Your task to perform on an android device: Open the phone app and click the voicemail tab. Image 0: 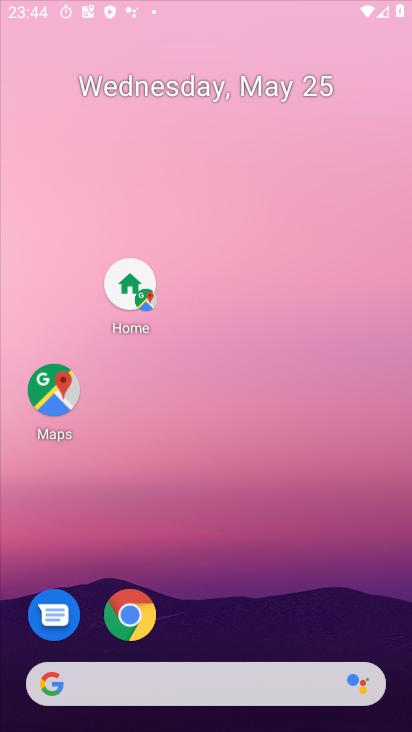
Step 0: press home button
Your task to perform on an android device: Open the phone app and click the voicemail tab. Image 1: 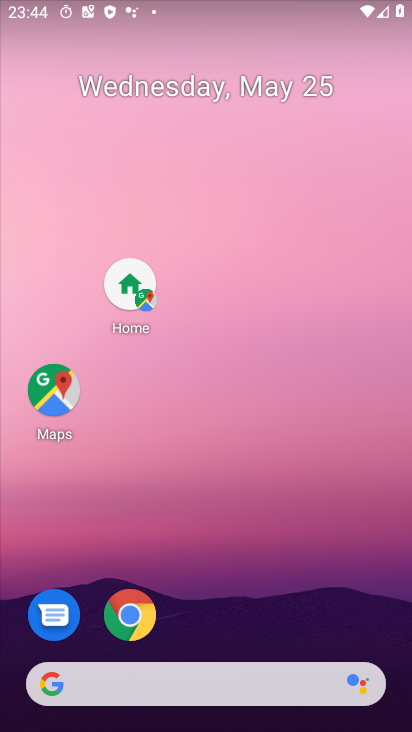
Step 1: click (52, 397)
Your task to perform on an android device: Open the phone app and click the voicemail tab. Image 2: 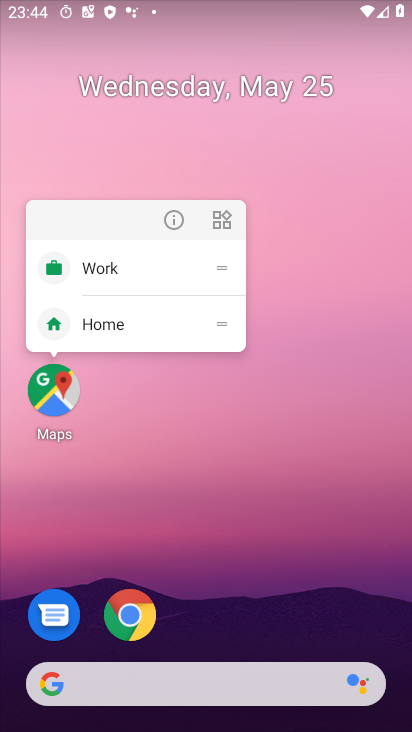
Step 2: click (52, 395)
Your task to perform on an android device: Open the phone app and click the voicemail tab. Image 3: 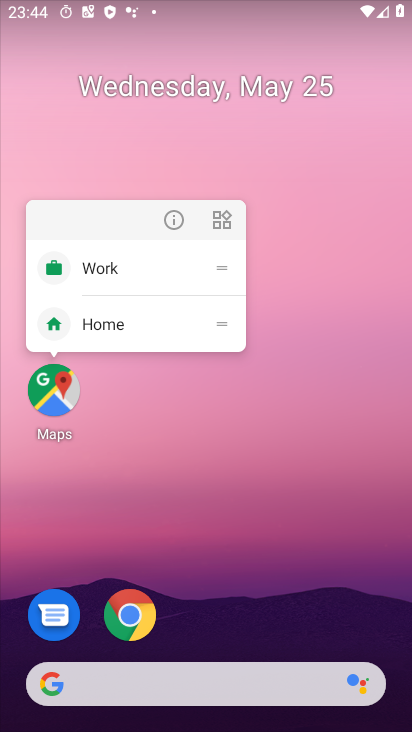
Step 3: click (53, 395)
Your task to perform on an android device: Open the phone app and click the voicemail tab. Image 4: 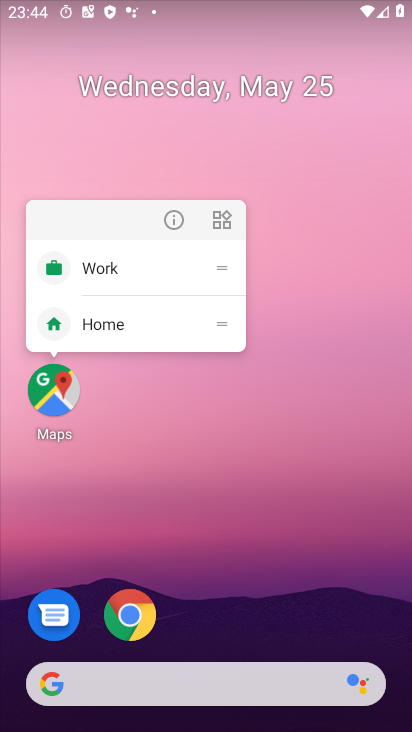
Step 4: click (47, 396)
Your task to perform on an android device: Open the phone app and click the voicemail tab. Image 5: 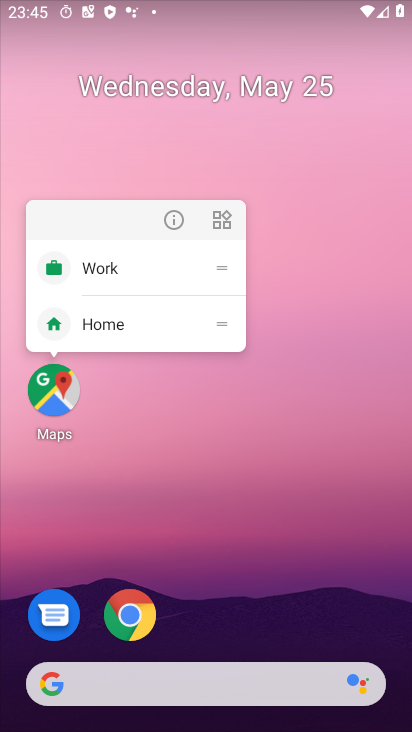
Step 5: click (307, 460)
Your task to perform on an android device: Open the phone app and click the voicemail tab. Image 6: 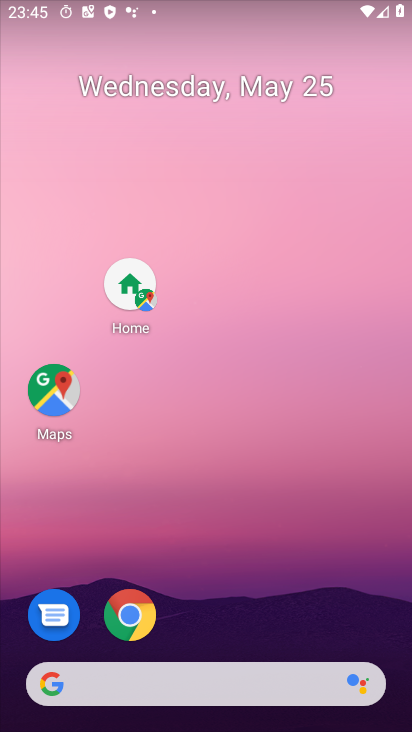
Step 6: drag from (301, 629) to (275, 177)
Your task to perform on an android device: Open the phone app and click the voicemail tab. Image 7: 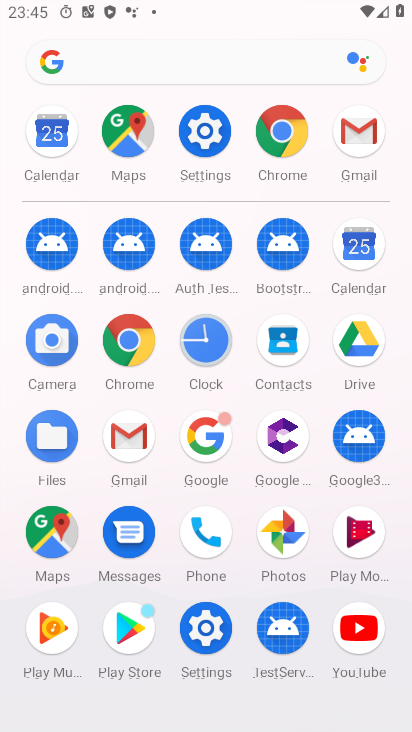
Step 7: click (204, 538)
Your task to perform on an android device: Open the phone app and click the voicemail tab. Image 8: 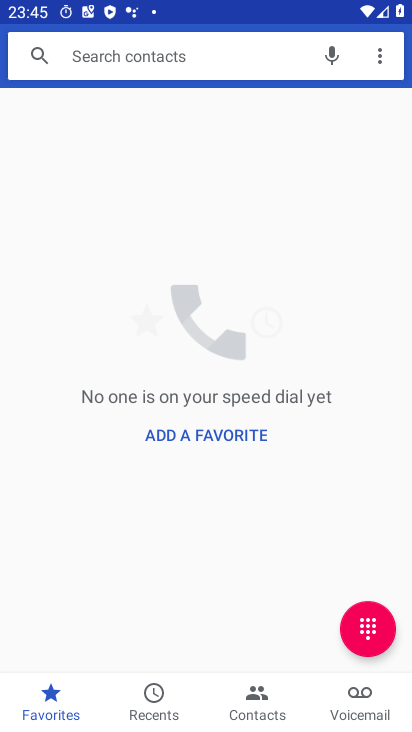
Step 8: click (351, 695)
Your task to perform on an android device: Open the phone app and click the voicemail tab. Image 9: 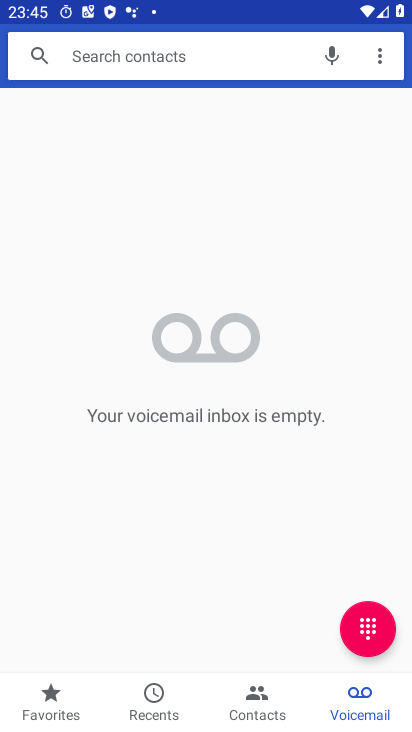
Step 9: task complete